Your task to perform on an android device: Open Reddit.com Image 0: 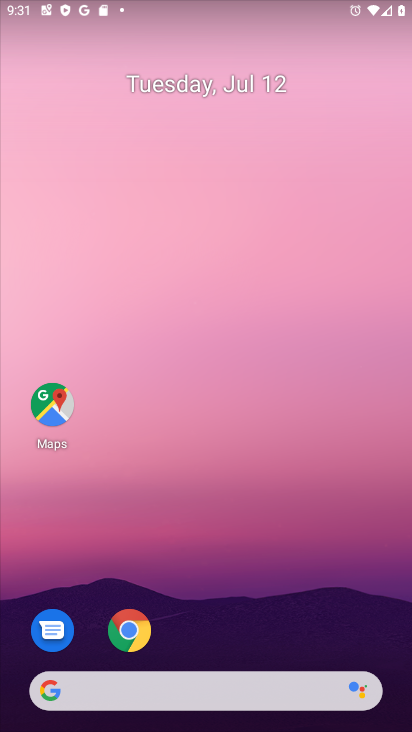
Step 0: drag from (207, 624) to (206, 139)
Your task to perform on an android device: Open Reddit.com Image 1: 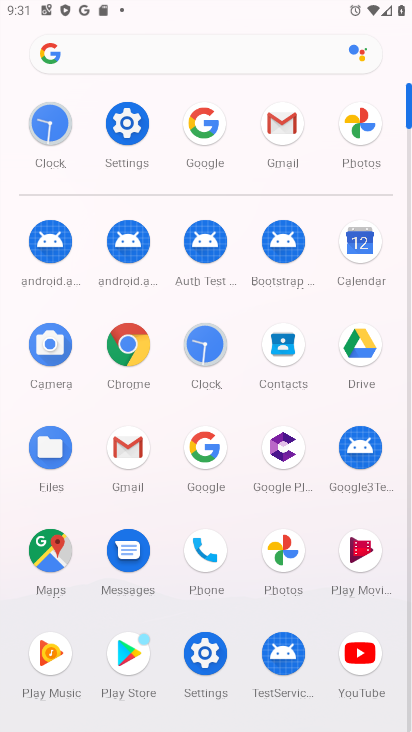
Step 1: click (206, 443)
Your task to perform on an android device: Open Reddit.com Image 2: 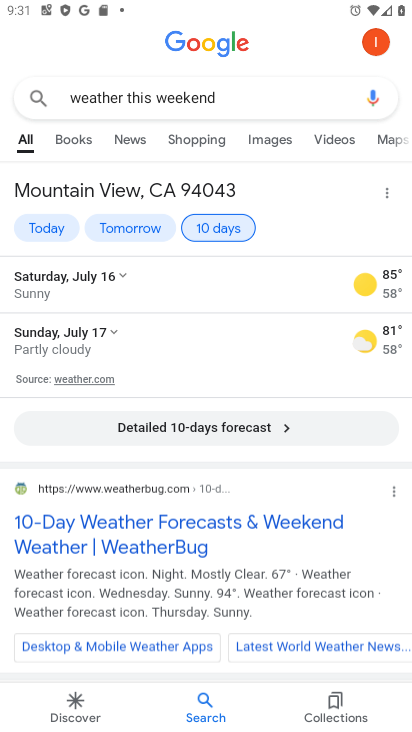
Step 2: click (233, 101)
Your task to perform on an android device: Open Reddit.com Image 3: 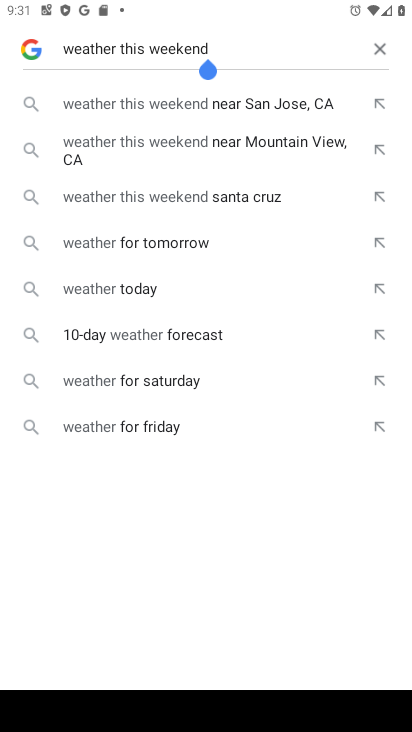
Step 3: click (377, 50)
Your task to perform on an android device: Open Reddit.com Image 4: 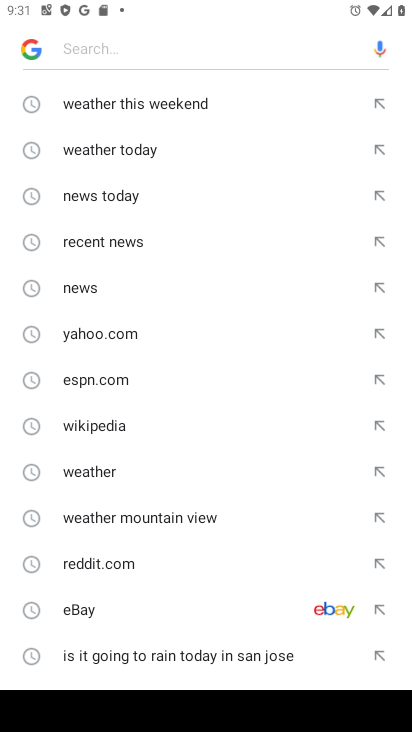
Step 4: click (104, 559)
Your task to perform on an android device: Open Reddit.com Image 5: 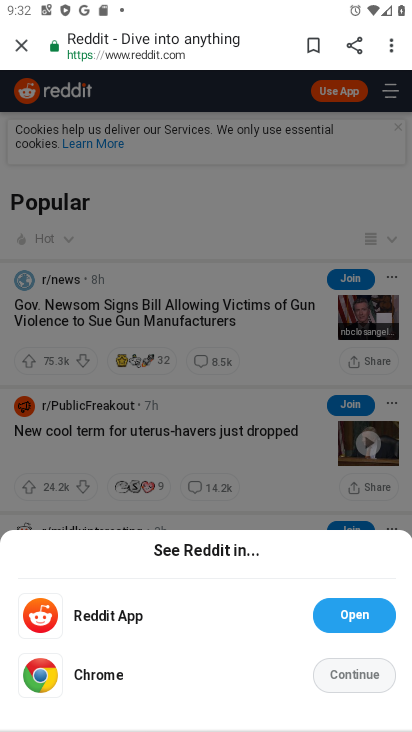
Step 5: task complete